Your task to perform on an android device: change the clock display to analog Image 0: 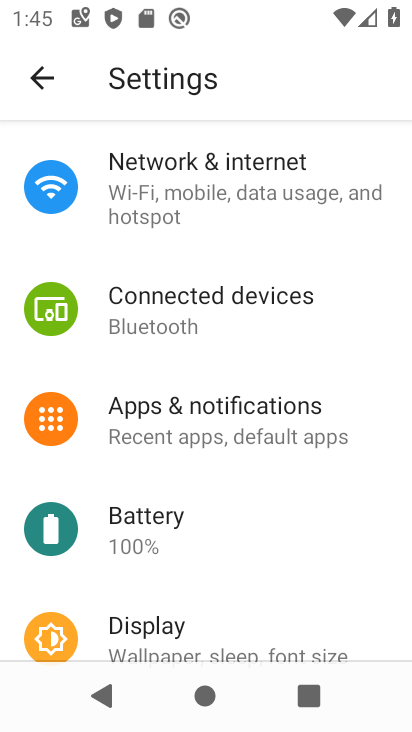
Step 0: press home button
Your task to perform on an android device: change the clock display to analog Image 1: 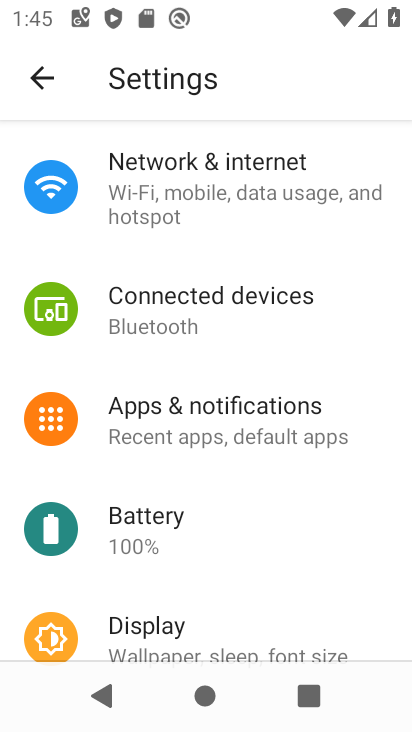
Step 1: press home button
Your task to perform on an android device: change the clock display to analog Image 2: 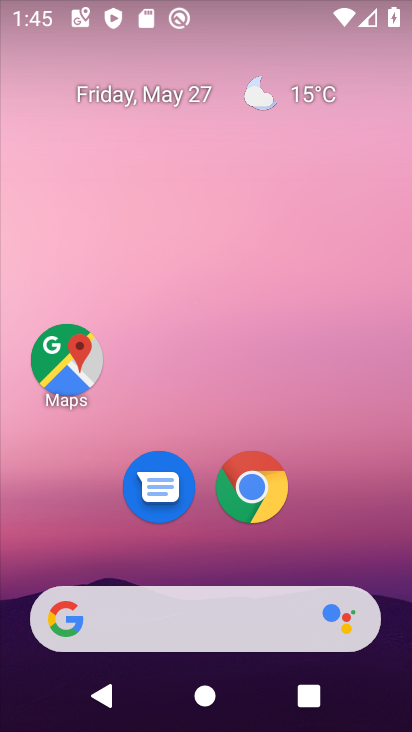
Step 2: drag from (340, 434) to (296, 170)
Your task to perform on an android device: change the clock display to analog Image 3: 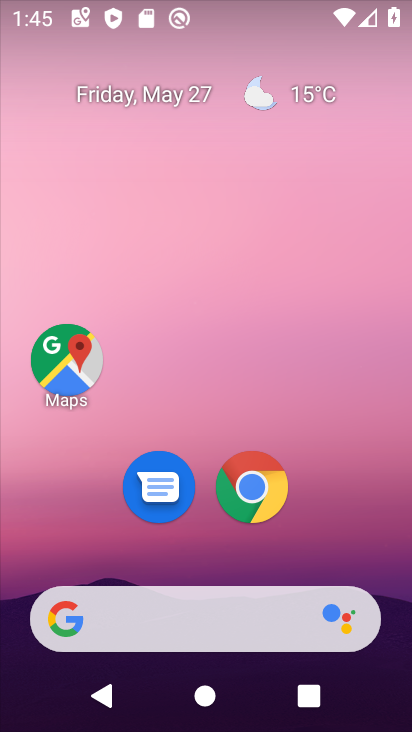
Step 3: drag from (333, 517) to (278, 181)
Your task to perform on an android device: change the clock display to analog Image 4: 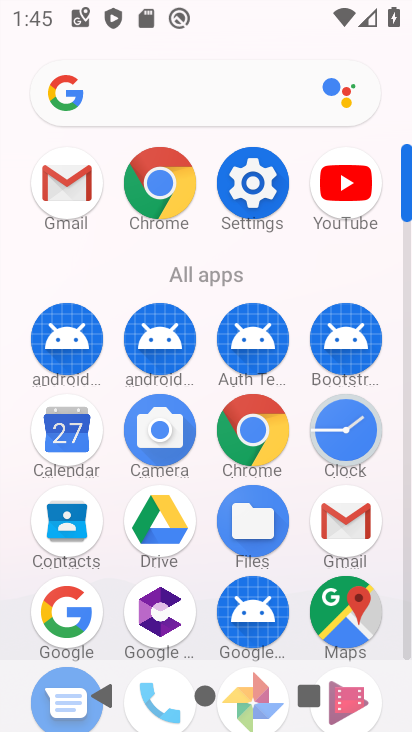
Step 4: click (356, 428)
Your task to perform on an android device: change the clock display to analog Image 5: 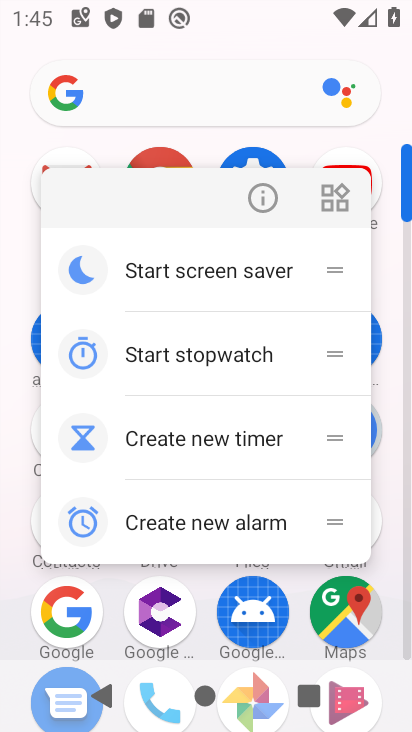
Step 5: click (394, 501)
Your task to perform on an android device: change the clock display to analog Image 6: 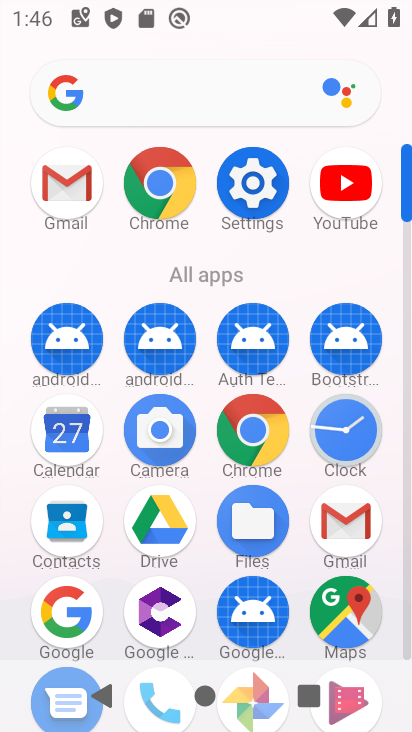
Step 6: click (357, 441)
Your task to perform on an android device: change the clock display to analog Image 7: 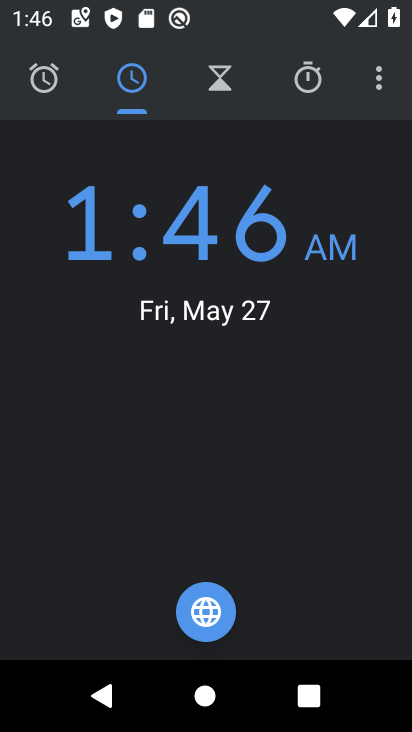
Step 7: click (374, 83)
Your task to perform on an android device: change the clock display to analog Image 8: 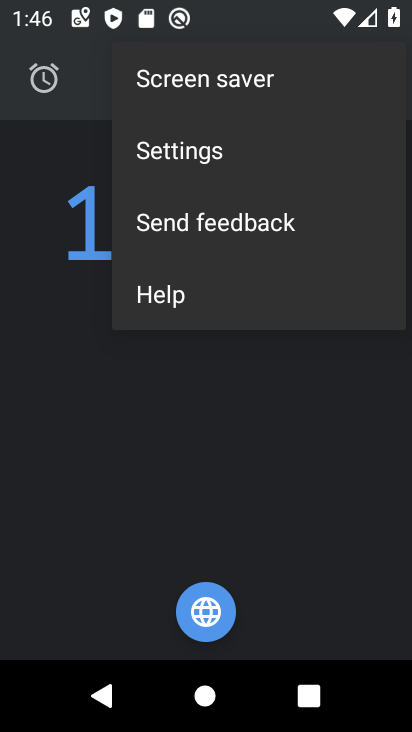
Step 8: click (153, 143)
Your task to perform on an android device: change the clock display to analog Image 9: 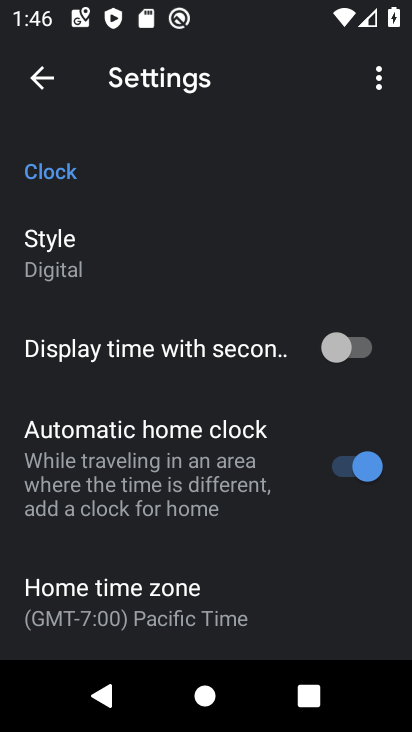
Step 9: click (75, 251)
Your task to perform on an android device: change the clock display to analog Image 10: 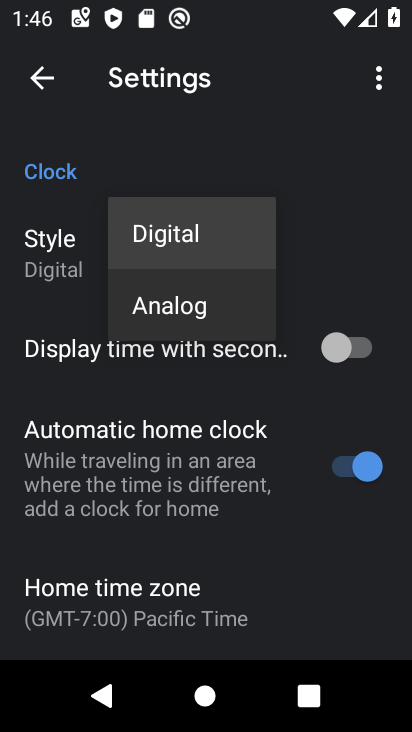
Step 10: click (55, 250)
Your task to perform on an android device: change the clock display to analog Image 11: 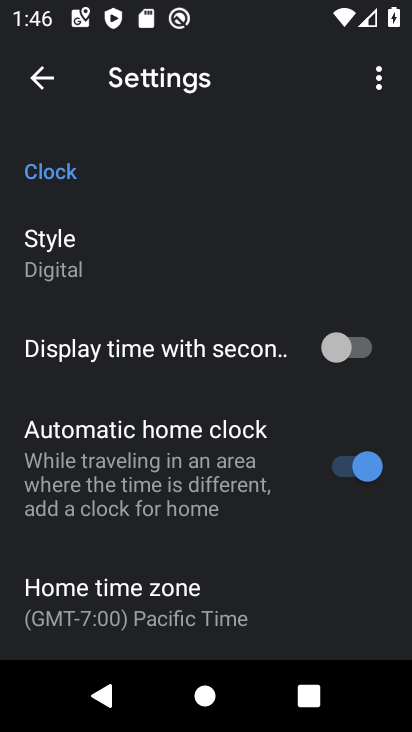
Step 11: click (51, 265)
Your task to perform on an android device: change the clock display to analog Image 12: 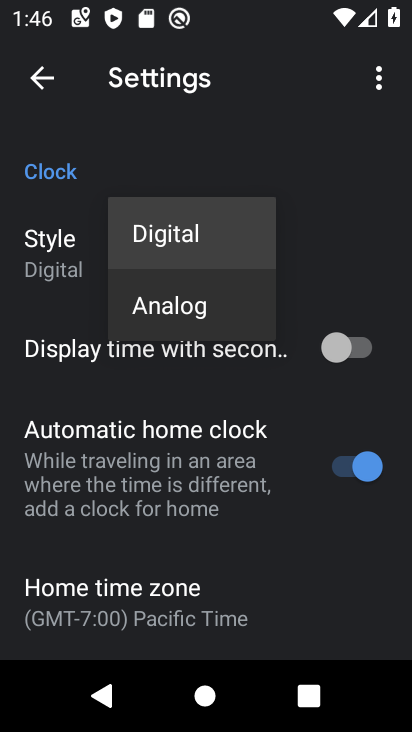
Step 12: click (158, 312)
Your task to perform on an android device: change the clock display to analog Image 13: 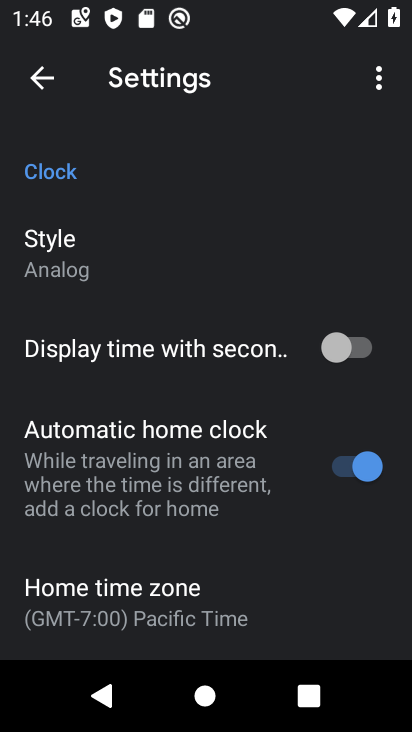
Step 13: task complete